Your task to perform on an android device: Do I have any events this weekend? Image 0: 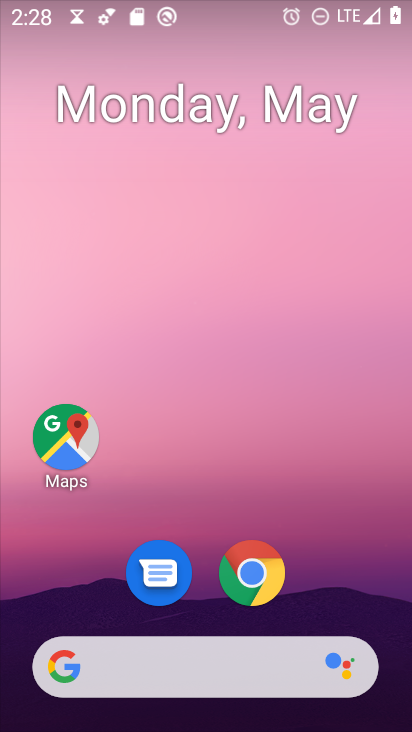
Step 0: drag from (205, 656) to (236, 25)
Your task to perform on an android device: Do I have any events this weekend? Image 1: 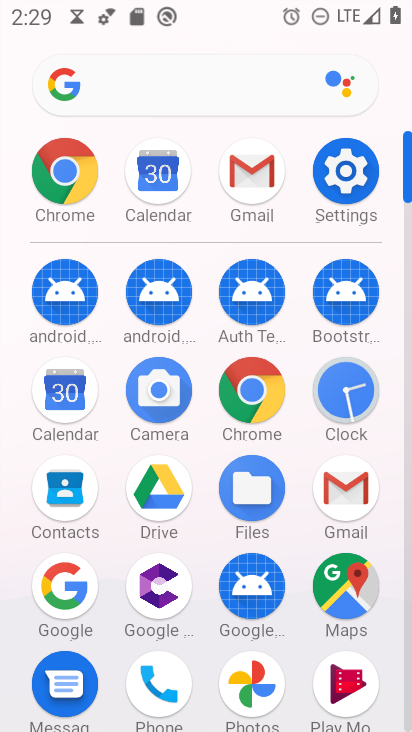
Step 1: click (46, 406)
Your task to perform on an android device: Do I have any events this weekend? Image 2: 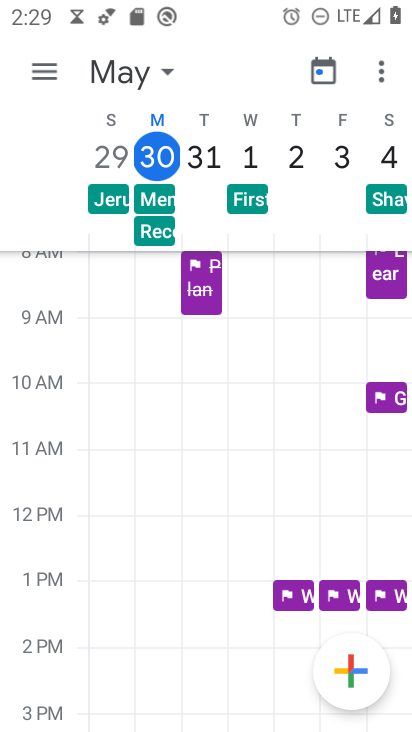
Step 2: click (159, 63)
Your task to perform on an android device: Do I have any events this weekend? Image 3: 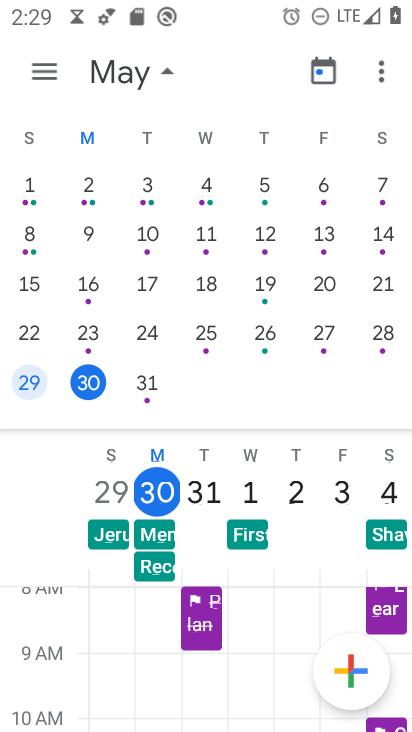
Step 3: drag from (385, 298) to (0, 373)
Your task to perform on an android device: Do I have any events this weekend? Image 4: 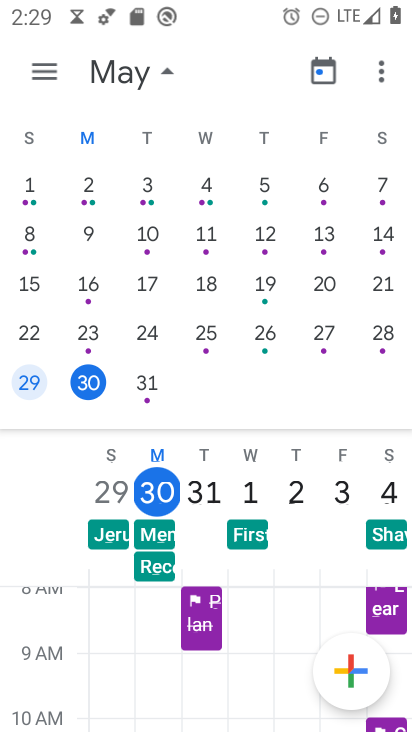
Step 4: drag from (338, 205) to (89, 318)
Your task to perform on an android device: Do I have any events this weekend? Image 5: 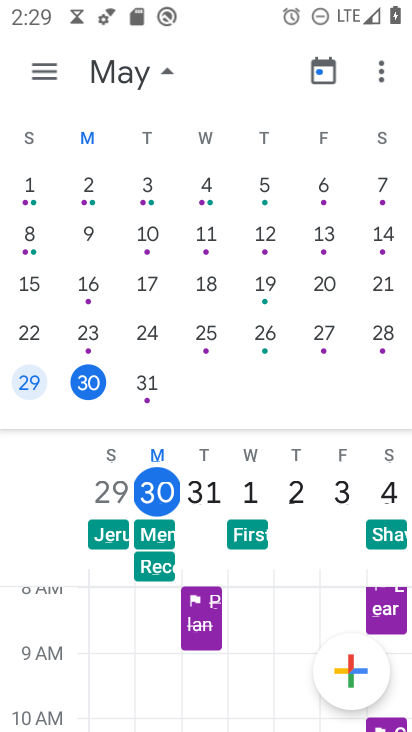
Step 5: click (150, 379)
Your task to perform on an android device: Do I have any events this weekend? Image 6: 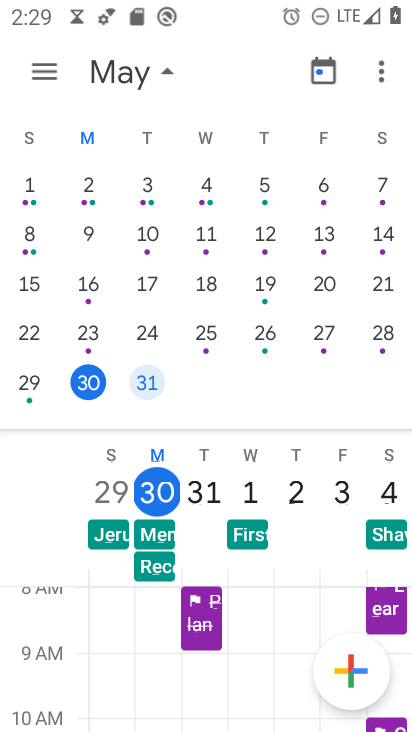
Step 6: click (65, 76)
Your task to perform on an android device: Do I have any events this weekend? Image 7: 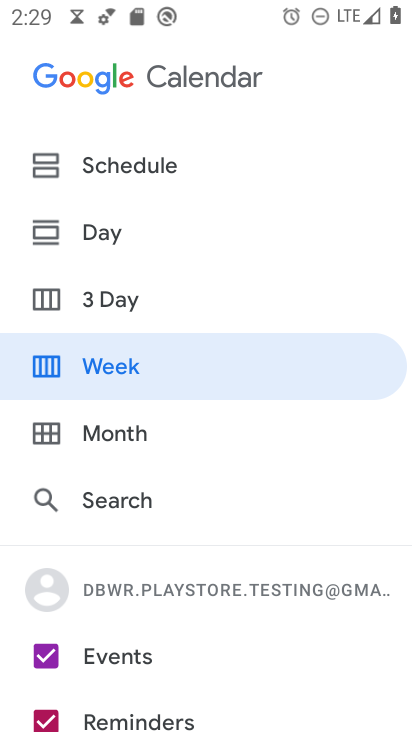
Step 7: click (132, 374)
Your task to perform on an android device: Do I have any events this weekend? Image 8: 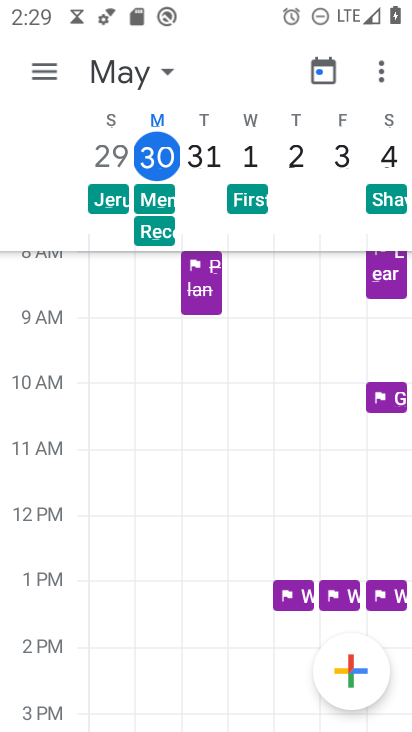
Step 8: task complete